Your task to perform on an android device: toggle show notifications on the lock screen Image 0: 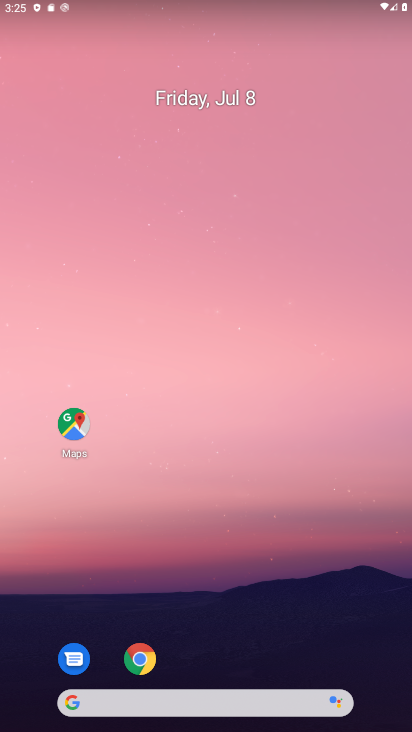
Step 0: drag from (297, 603) to (302, 92)
Your task to perform on an android device: toggle show notifications on the lock screen Image 1: 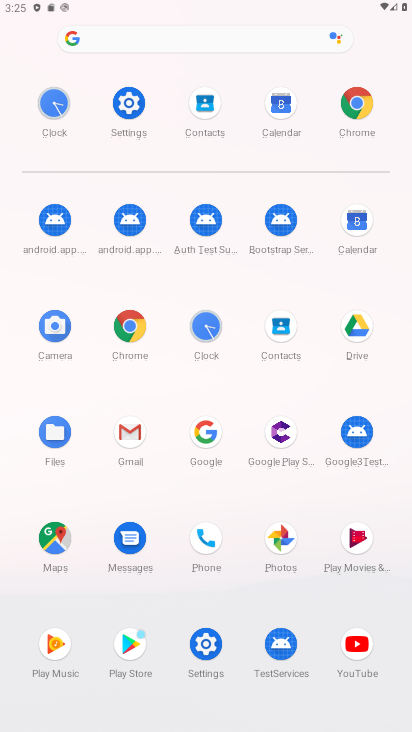
Step 1: click (207, 647)
Your task to perform on an android device: toggle show notifications on the lock screen Image 2: 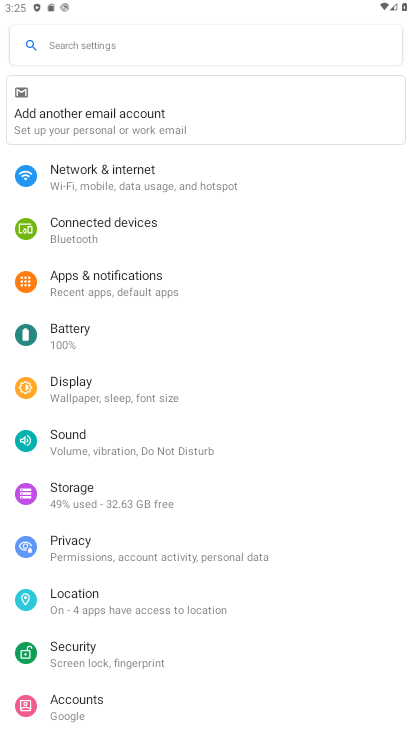
Step 2: click (192, 273)
Your task to perform on an android device: toggle show notifications on the lock screen Image 3: 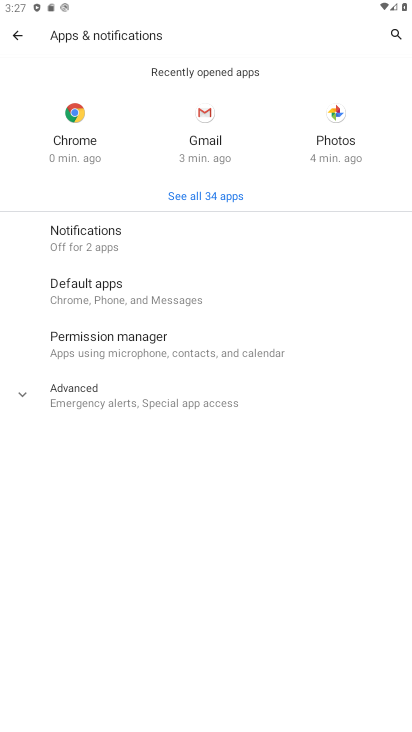
Step 3: click (135, 244)
Your task to perform on an android device: toggle show notifications on the lock screen Image 4: 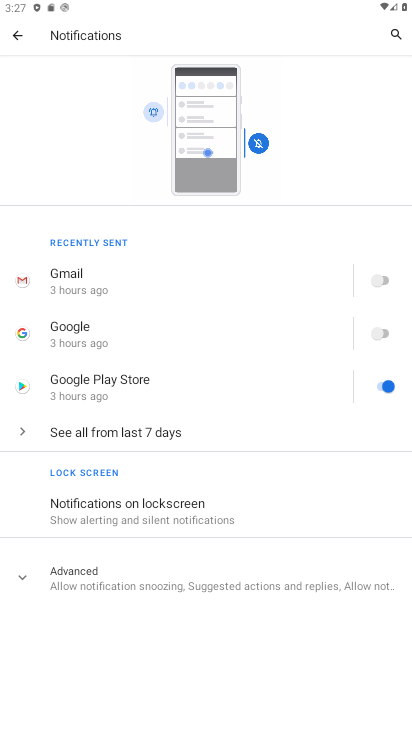
Step 4: click (193, 512)
Your task to perform on an android device: toggle show notifications on the lock screen Image 5: 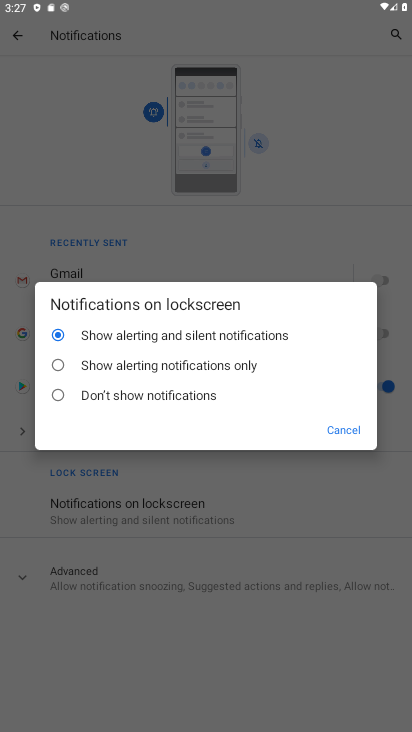
Step 5: click (166, 385)
Your task to perform on an android device: toggle show notifications on the lock screen Image 6: 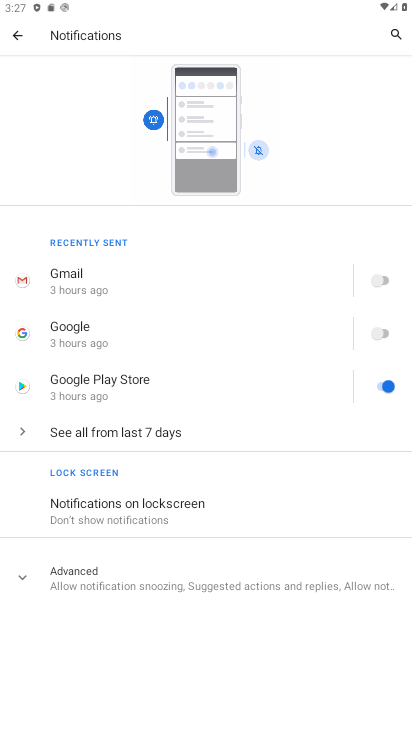
Step 6: task complete